Your task to perform on an android device: turn off javascript in the chrome app Image 0: 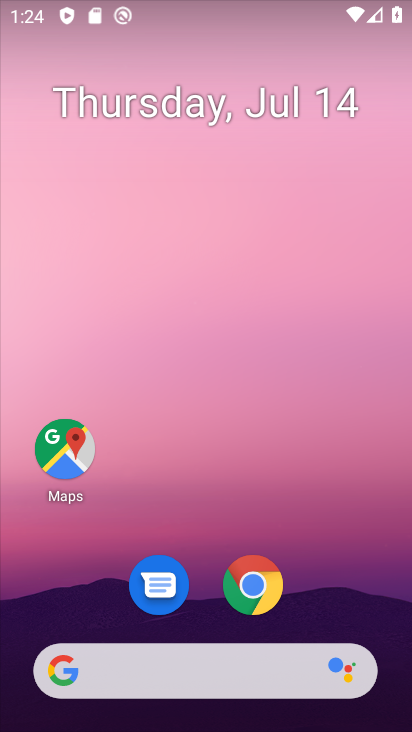
Step 0: click (261, 588)
Your task to perform on an android device: turn off javascript in the chrome app Image 1: 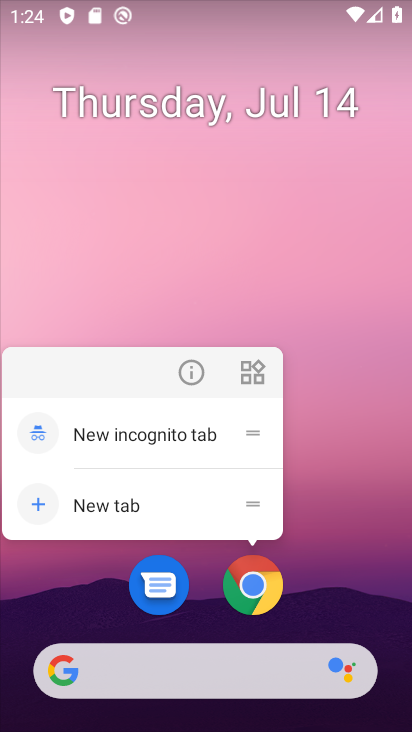
Step 1: click (261, 587)
Your task to perform on an android device: turn off javascript in the chrome app Image 2: 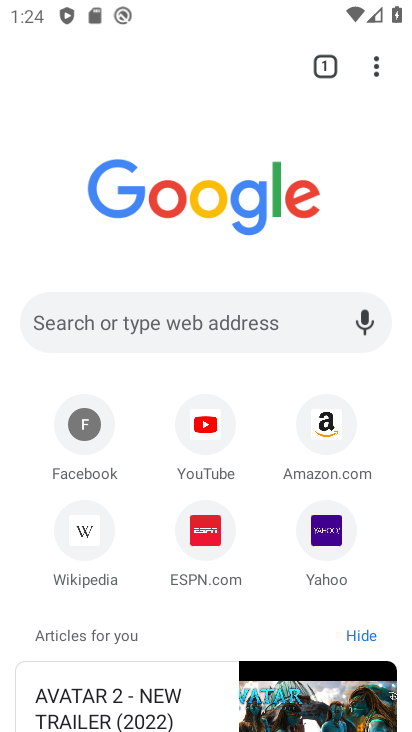
Step 2: click (374, 66)
Your task to perform on an android device: turn off javascript in the chrome app Image 3: 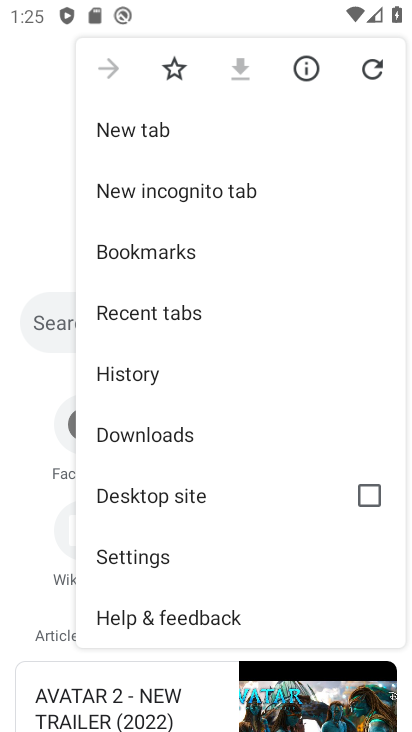
Step 3: click (131, 559)
Your task to perform on an android device: turn off javascript in the chrome app Image 4: 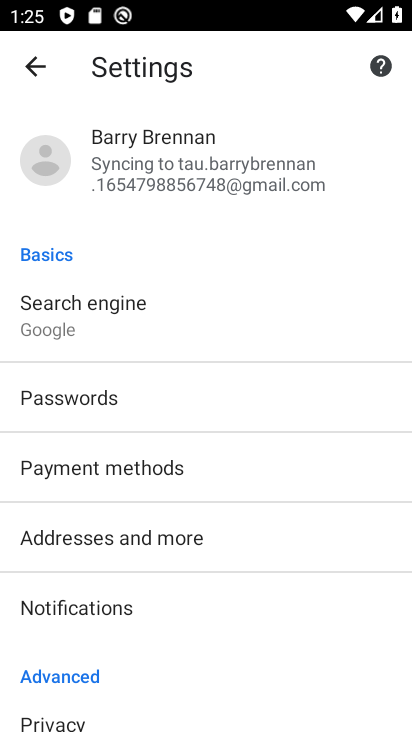
Step 4: drag from (232, 624) to (266, 309)
Your task to perform on an android device: turn off javascript in the chrome app Image 5: 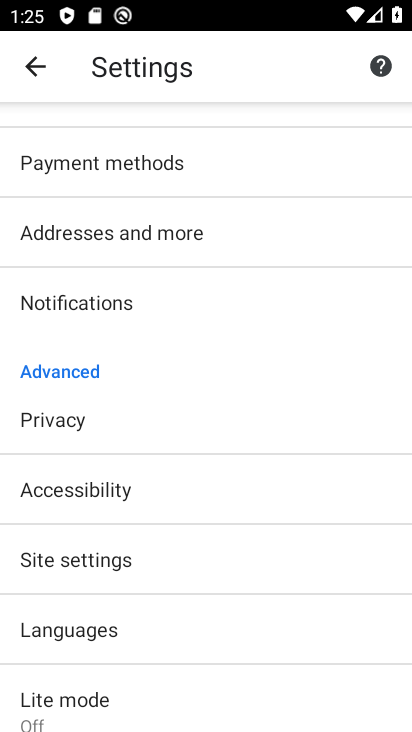
Step 5: click (102, 557)
Your task to perform on an android device: turn off javascript in the chrome app Image 6: 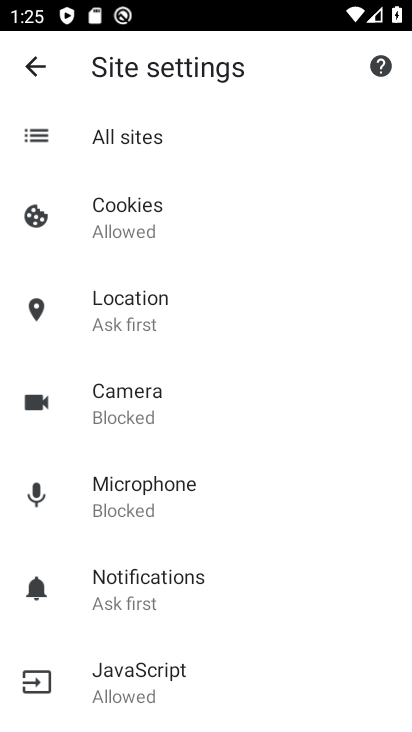
Step 6: click (187, 680)
Your task to perform on an android device: turn off javascript in the chrome app Image 7: 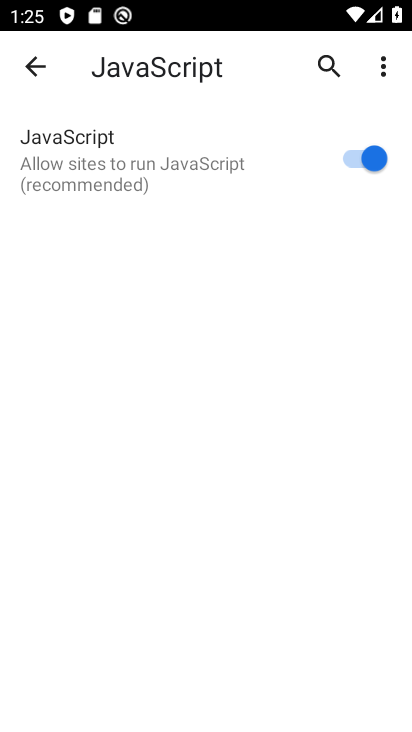
Step 7: click (360, 148)
Your task to perform on an android device: turn off javascript in the chrome app Image 8: 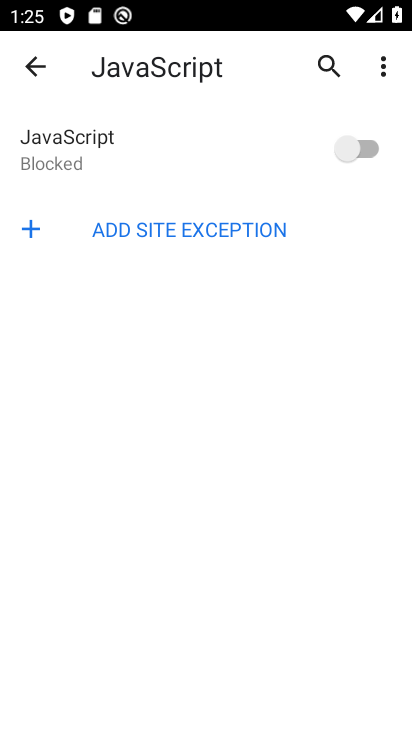
Step 8: task complete